Your task to perform on an android device: check the backup settings in the google photos Image 0: 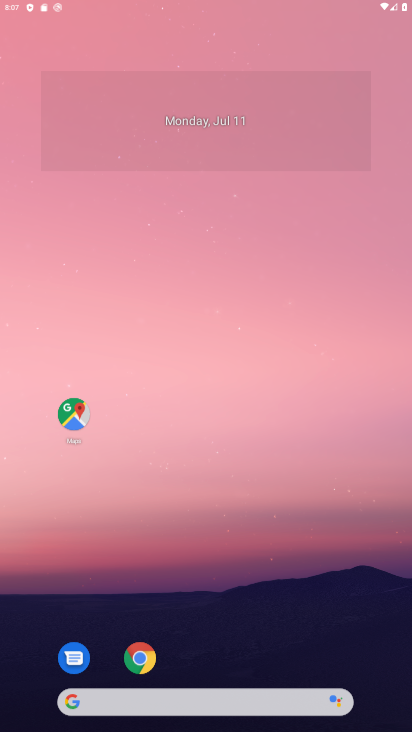
Step 0: click (138, 664)
Your task to perform on an android device: check the backup settings in the google photos Image 1: 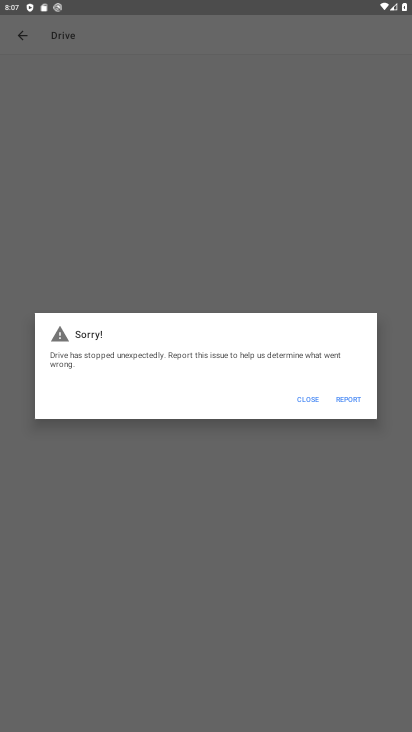
Step 1: press home button
Your task to perform on an android device: check the backup settings in the google photos Image 2: 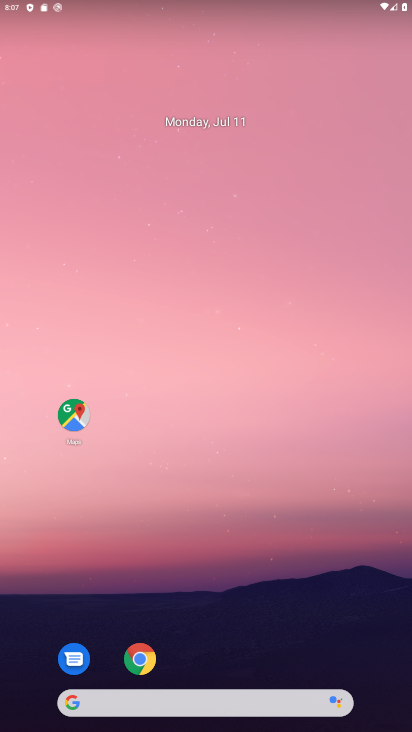
Step 2: drag from (41, 712) to (264, 206)
Your task to perform on an android device: check the backup settings in the google photos Image 3: 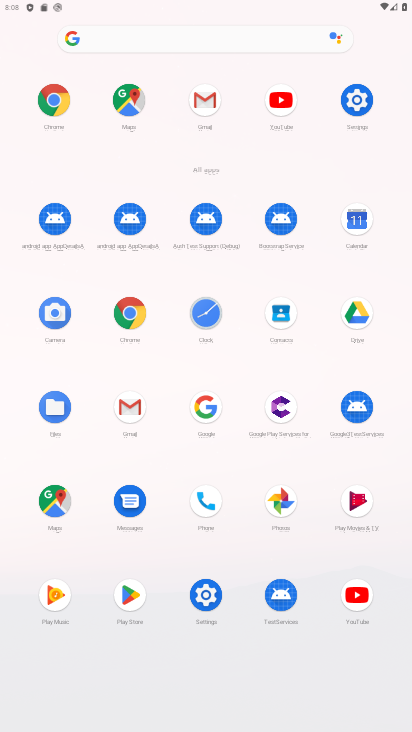
Step 3: click (273, 506)
Your task to perform on an android device: check the backup settings in the google photos Image 4: 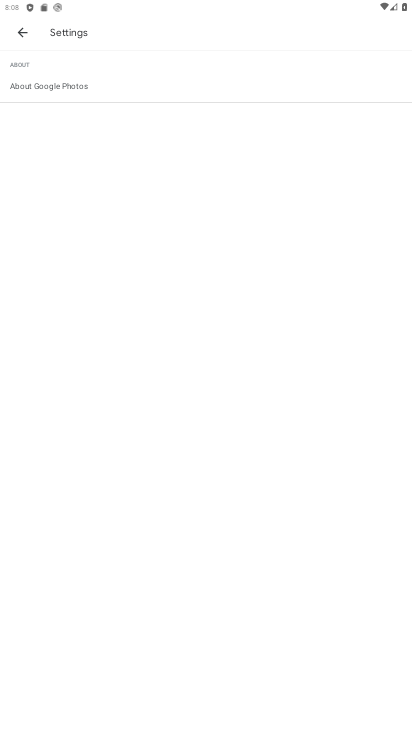
Step 4: click (23, 36)
Your task to perform on an android device: check the backup settings in the google photos Image 5: 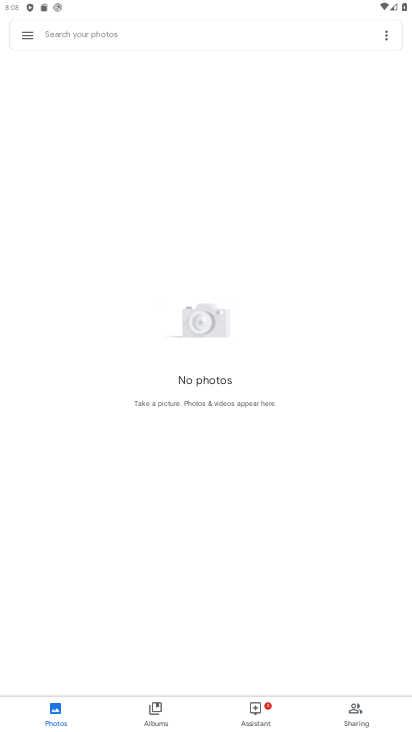
Step 5: click (30, 33)
Your task to perform on an android device: check the backup settings in the google photos Image 6: 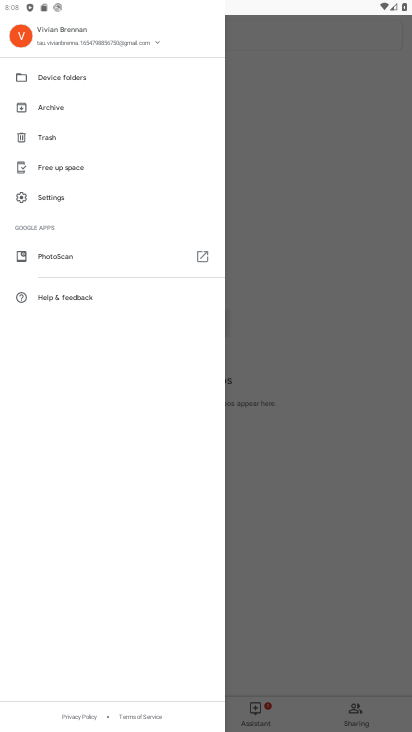
Step 6: click (60, 195)
Your task to perform on an android device: check the backup settings in the google photos Image 7: 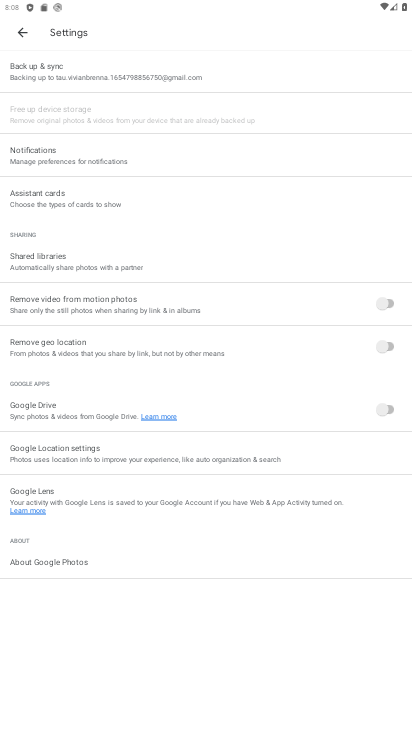
Step 7: click (44, 70)
Your task to perform on an android device: check the backup settings in the google photos Image 8: 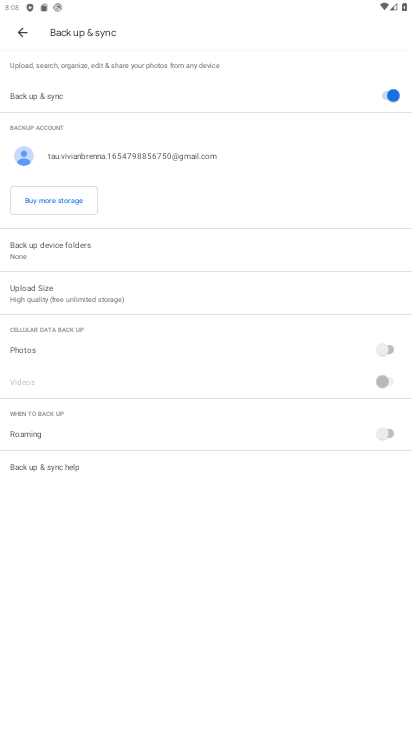
Step 8: task complete